Your task to perform on an android device: check android version Image 0: 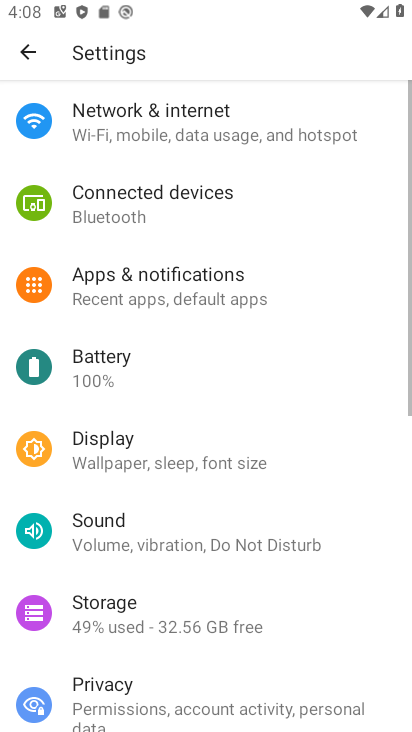
Step 0: click (21, 53)
Your task to perform on an android device: check android version Image 1: 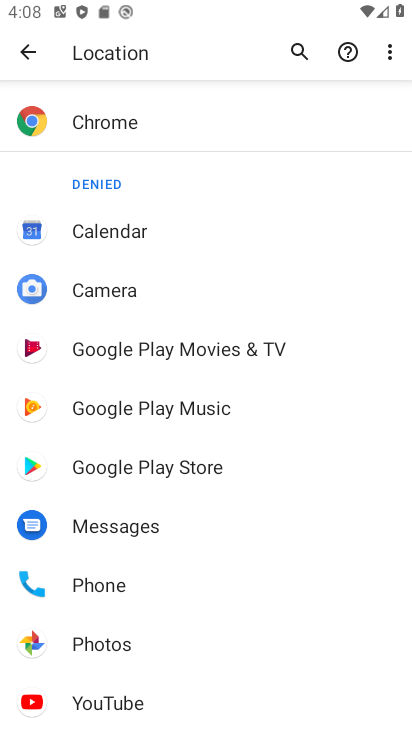
Step 1: click (26, 57)
Your task to perform on an android device: check android version Image 2: 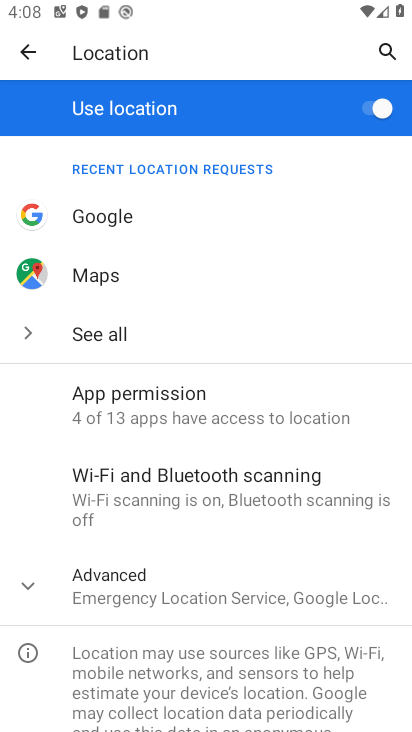
Step 2: click (23, 50)
Your task to perform on an android device: check android version Image 3: 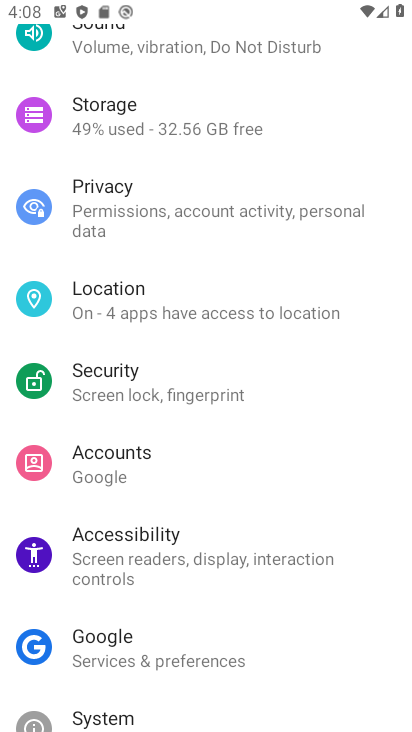
Step 3: drag from (102, 656) to (130, 335)
Your task to perform on an android device: check android version Image 4: 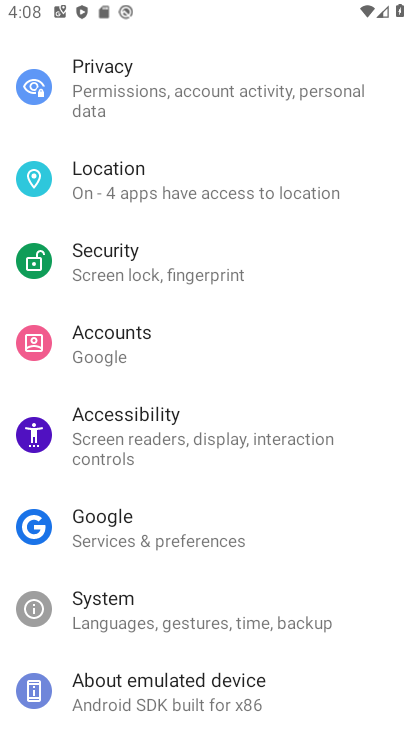
Step 4: drag from (192, 552) to (188, 315)
Your task to perform on an android device: check android version Image 5: 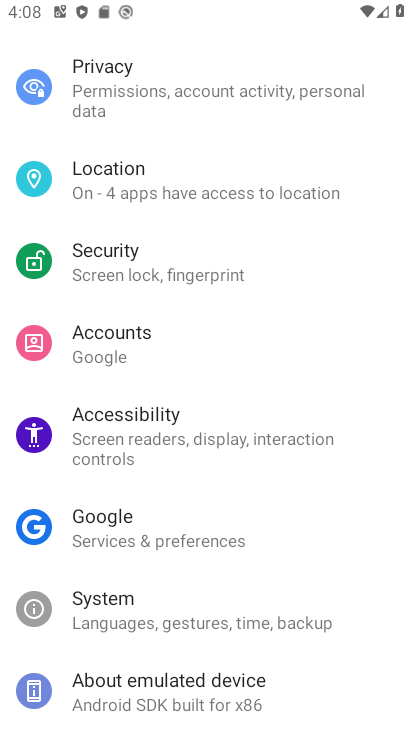
Step 5: click (169, 698)
Your task to perform on an android device: check android version Image 6: 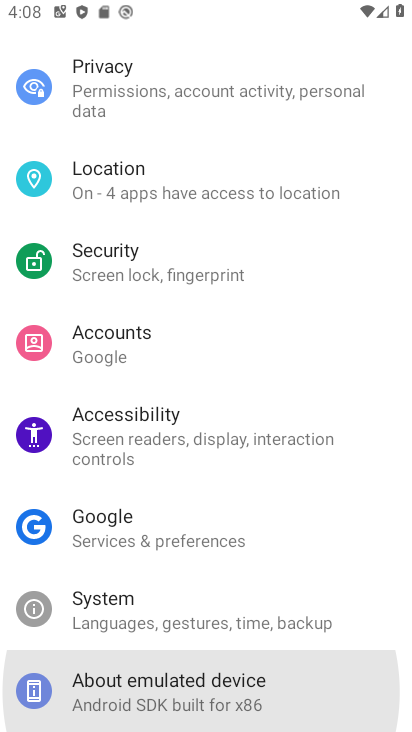
Step 6: click (169, 698)
Your task to perform on an android device: check android version Image 7: 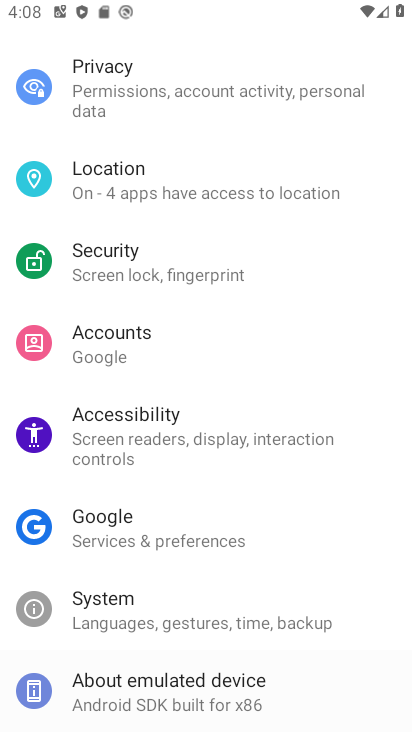
Step 7: click (167, 697)
Your task to perform on an android device: check android version Image 8: 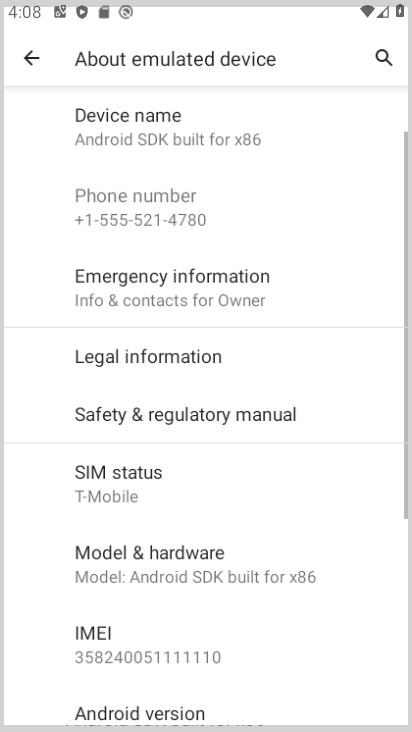
Step 8: click (165, 697)
Your task to perform on an android device: check android version Image 9: 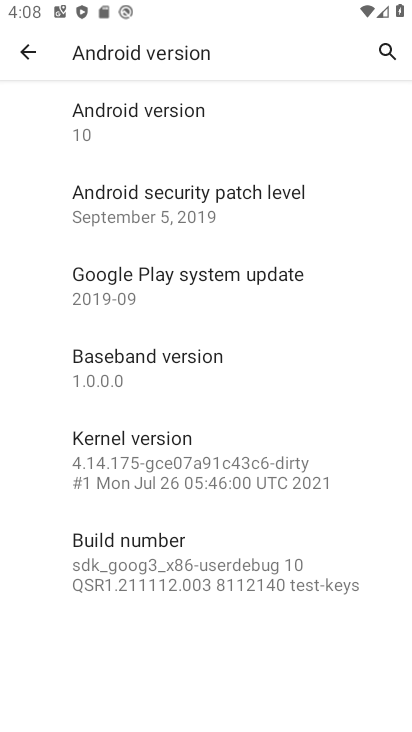
Step 9: task complete